Your task to perform on an android device: check storage Image 0: 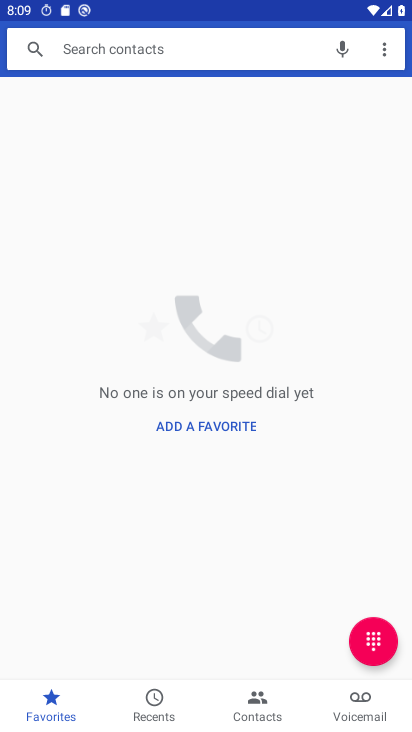
Step 0: press home button
Your task to perform on an android device: check storage Image 1: 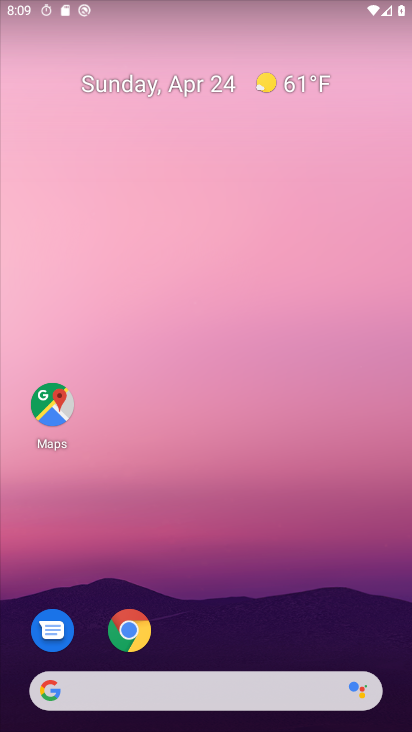
Step 1: drag from (349, 617) to (364, 57)
Your task to perform on an android device: check storage Image 2: 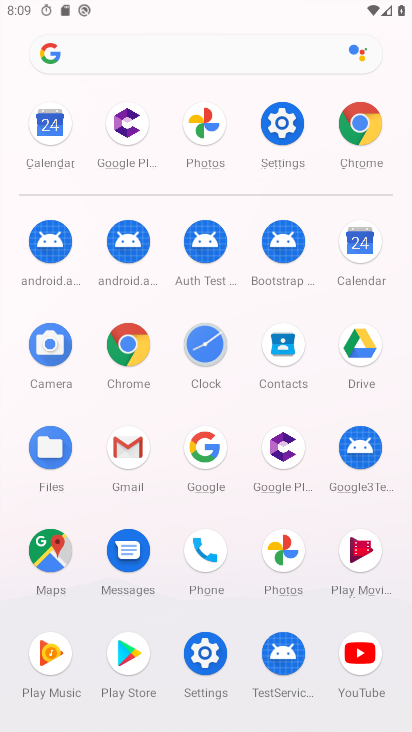
Step 2: click (281, 127)
Your task to perform on an android device: check storage Image 3: 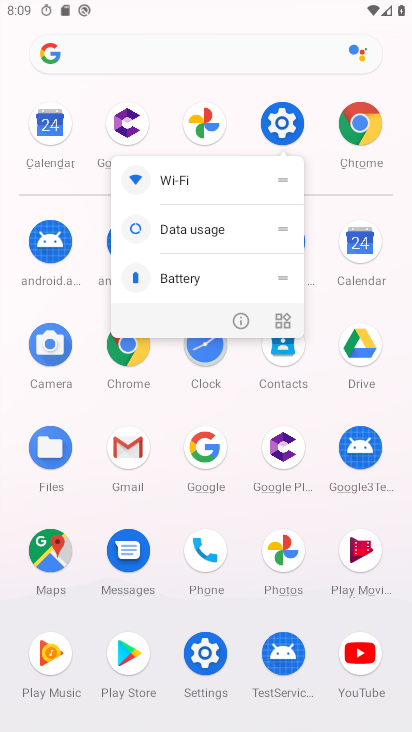
Step 3: click (279, 124)
Your task to perform on an android device: check storage Image 4: 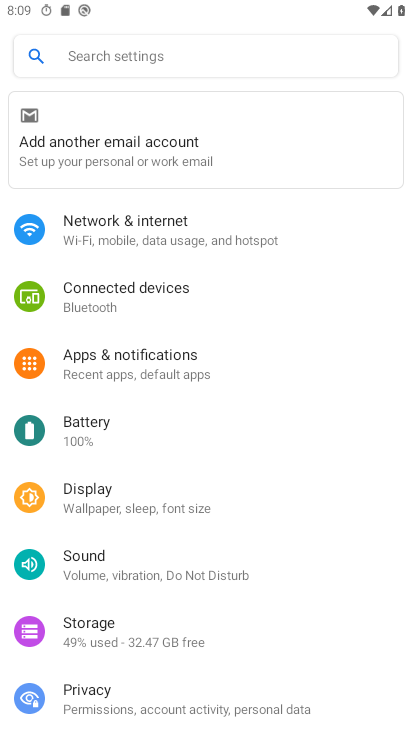
Step 4: drag from (339, 619) to (331, 459)
Your task to perform on an android device: check storage Image 5: 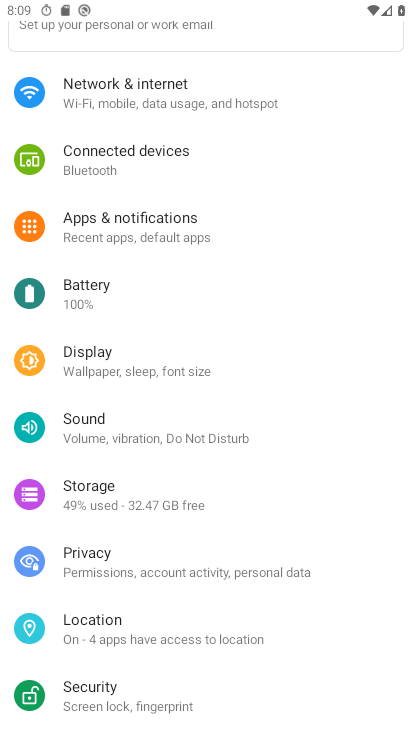
Step 5: drag from (354, 633) to (381, 317)
Your task to perform on an android device: check storage Image 6: 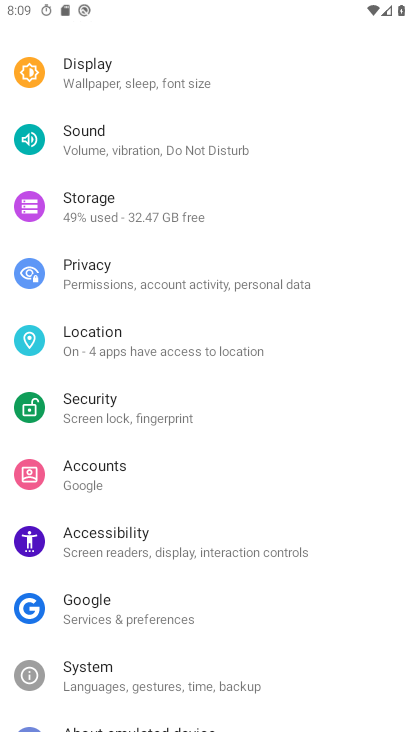
Step 6: drag from (337, 610) to (344, 371)
Your task to perform on an android device: check storage Image 7: 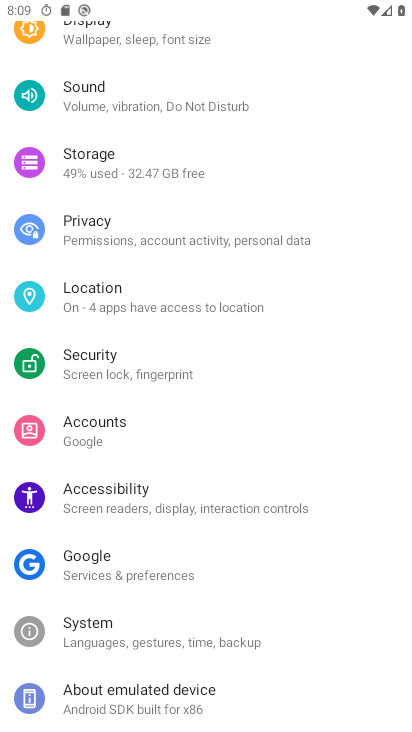
Step 7: drag from (355, 297) to (342, 434)
Your task to perform on an android device: check storage Image 8: 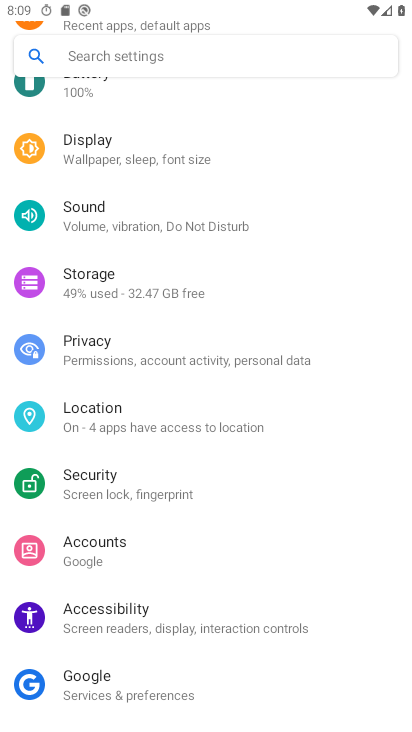
Step 8: drag from (353, 330) to (360, 473)
Your task to perform on an android device: check storage Image 9: 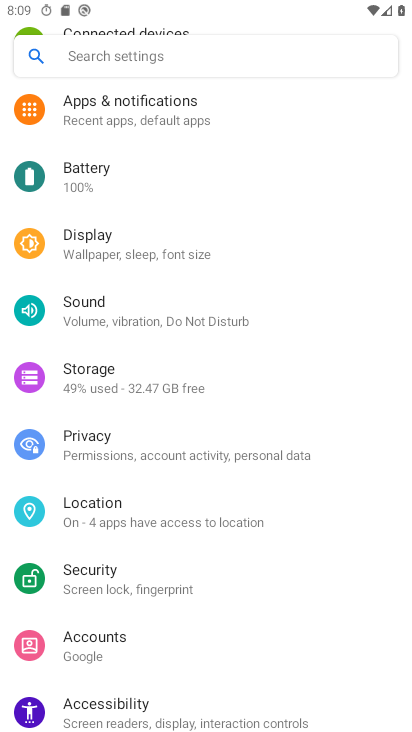
Step 9: drag from (360, 331) to (359, 452)
Your task to perform on an android device: check storage Image 10: 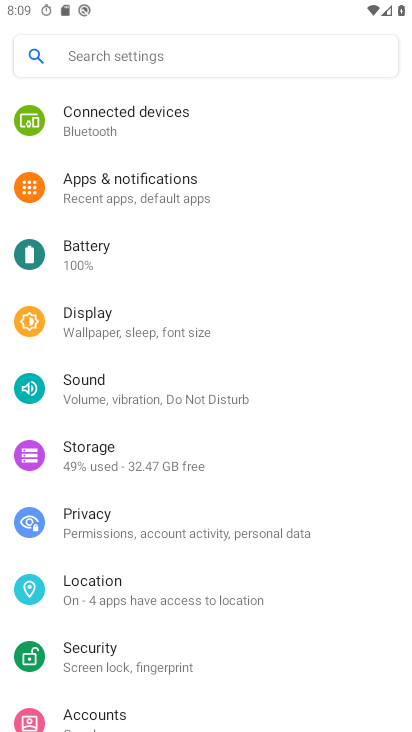
Step 10: click (185, 457)
Your task to perform on an android device: check storage Image 11: 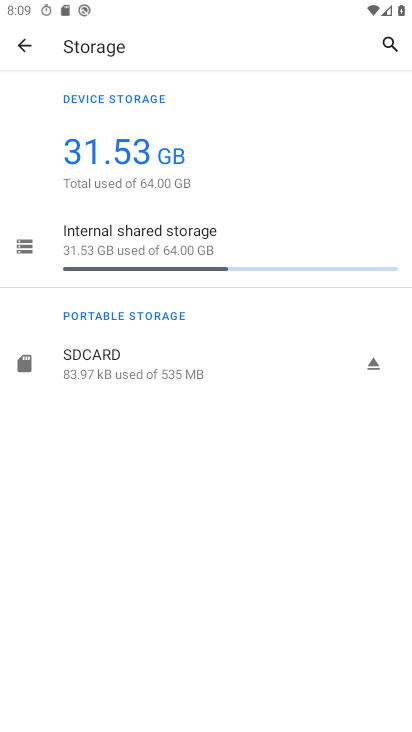
Step 11: task complete